Your task to perform on an android device: Search for sushi restaurants on Maps Image 0: 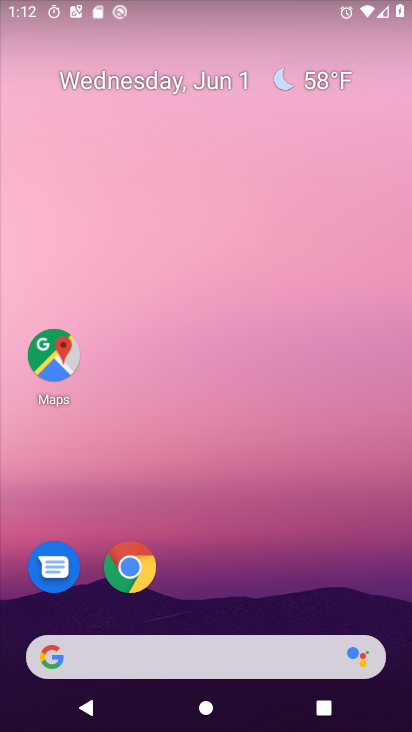
Step 0: click (216, 587)
Your task to perform on an android device: Search for sushi restaurants on Maps Image 1: 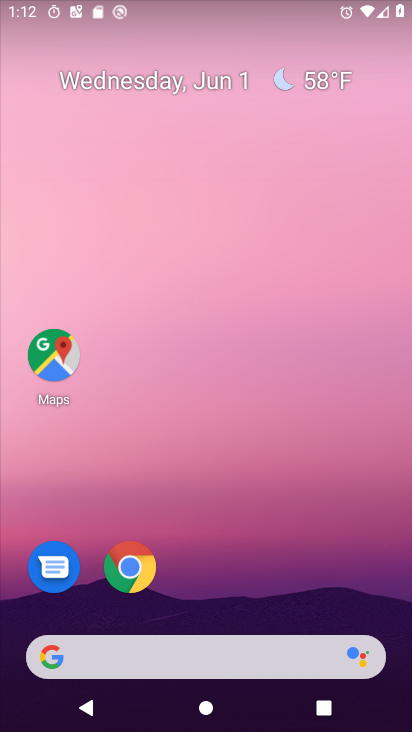
Step 1: click (50, 366)
Your task to perform on an android device: Search for sushi restaurants on Maps Image 2: 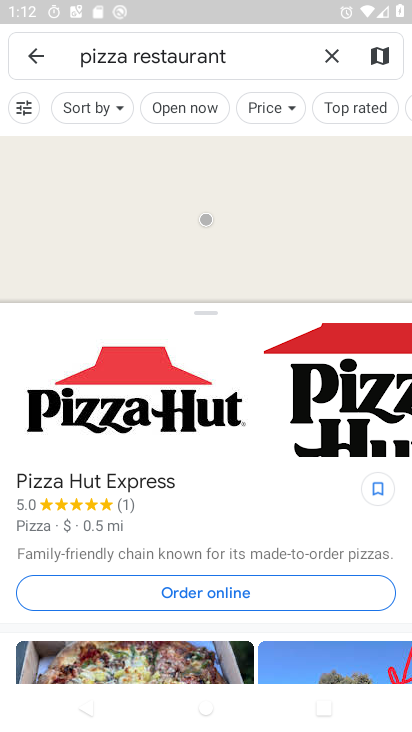
Step 2: click (325, 51)
Your task to perform on an android device: Search for sushi restaurants on Maps Image 3: 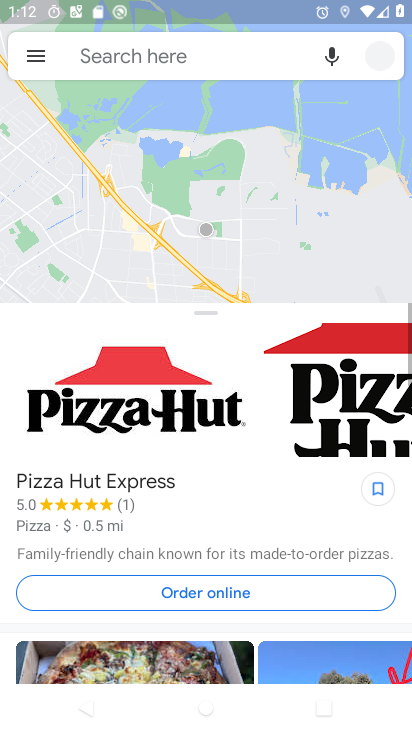
Step 3: click (155, 56)
Your task to perform on an android device: Search for sushi restaurants on Maps Image 4: 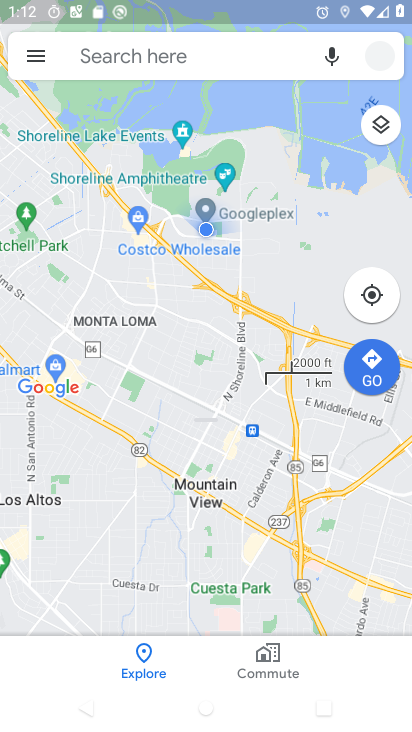
Step 4: click (155, 56)
Your task to perform on an android device: Search for sushi restaurants on Maps Image 5: 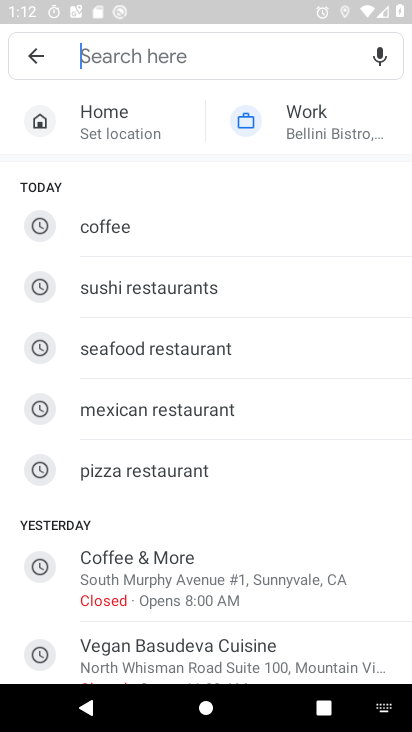
Step 5: click (98, 280)
Your task to perform on an android device: Search for sushi restaurants on Maps Image 6: 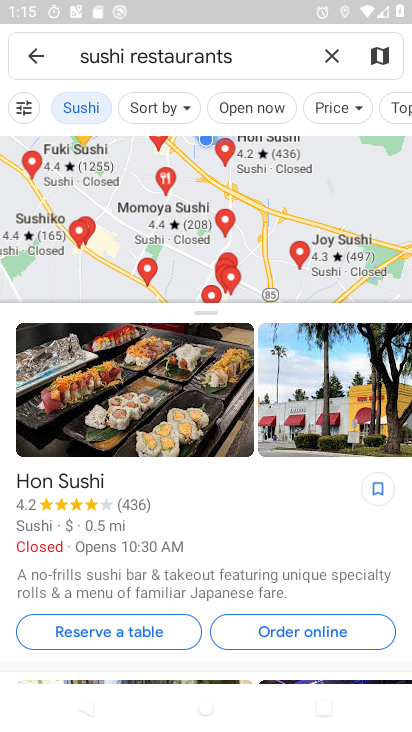
Step 6: task complete